Your task to perform on an android device: What's the weather like in Beijing? Image 0: 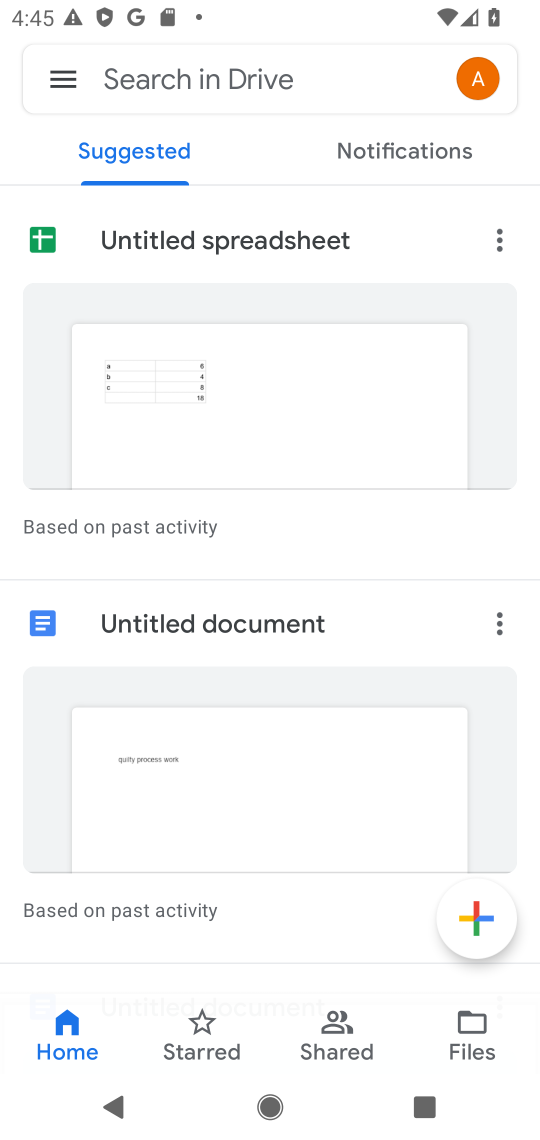
Step 0: press home button
Your task to perform on an android device: What's the weather like in Beijing? Image 1: 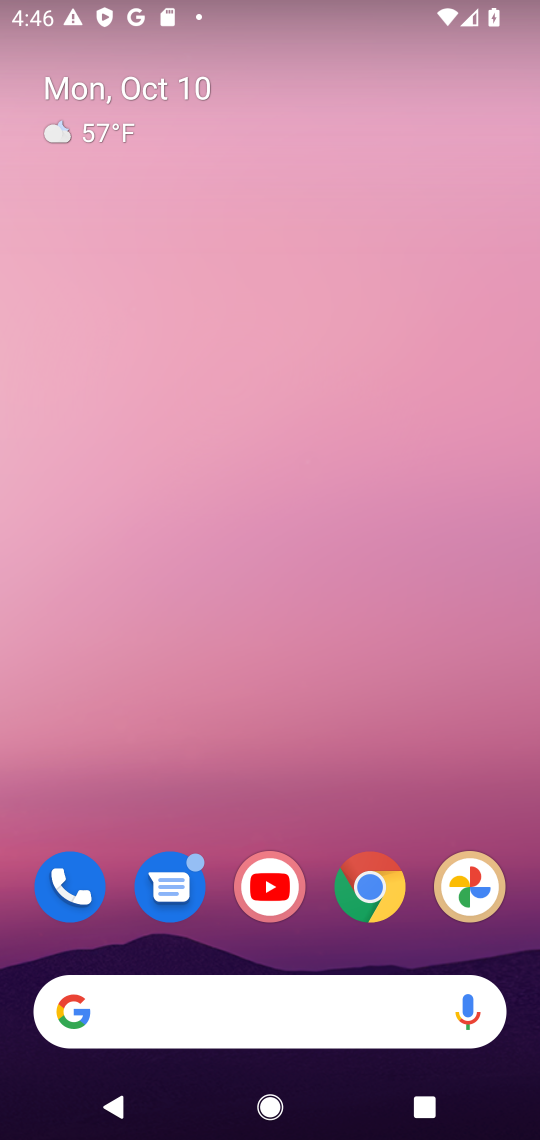
Step 1: click (379, 892)
Your task to perform on an android device: What's the weather like in Beijing? Image 2: 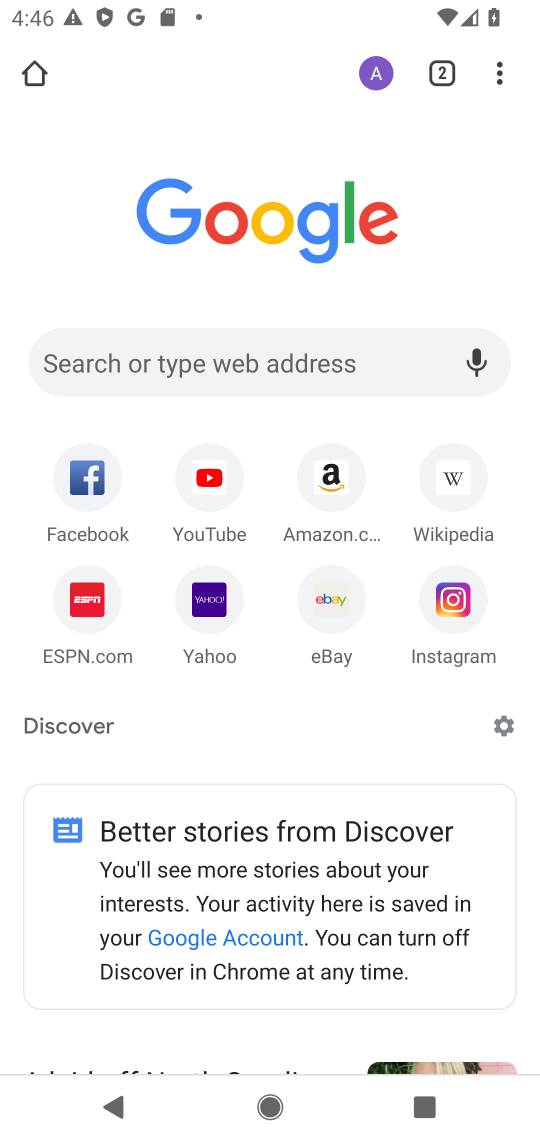
Step 2: click (175, 365)
Your task to perform on an android device: What's the weather like in Beijing? Image 3: 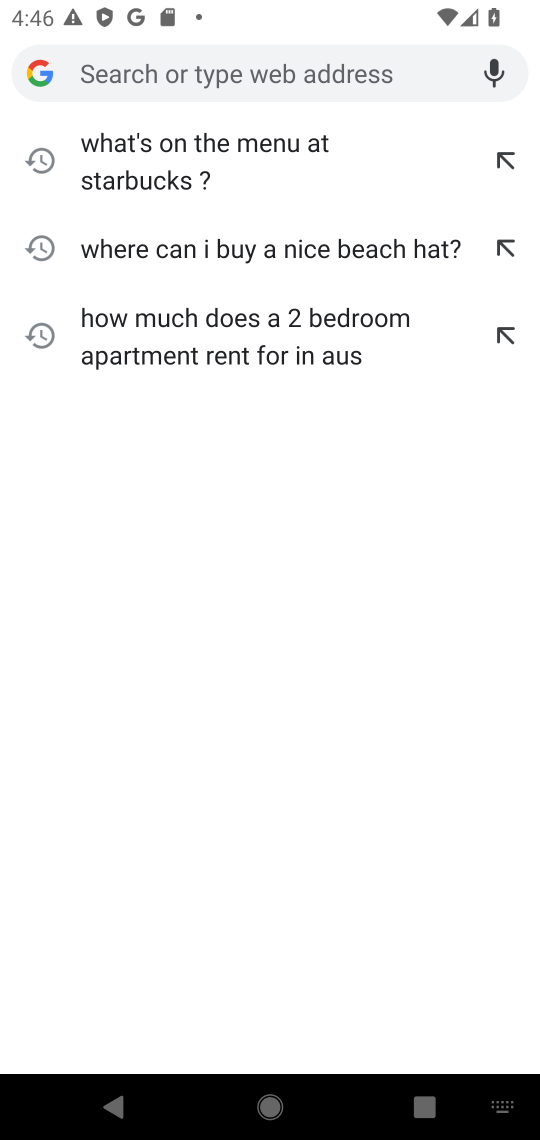
Step 3: type "weather in beijing ?"
Your task to perform on an android device: What's the weather like in Beijing? Image 4: 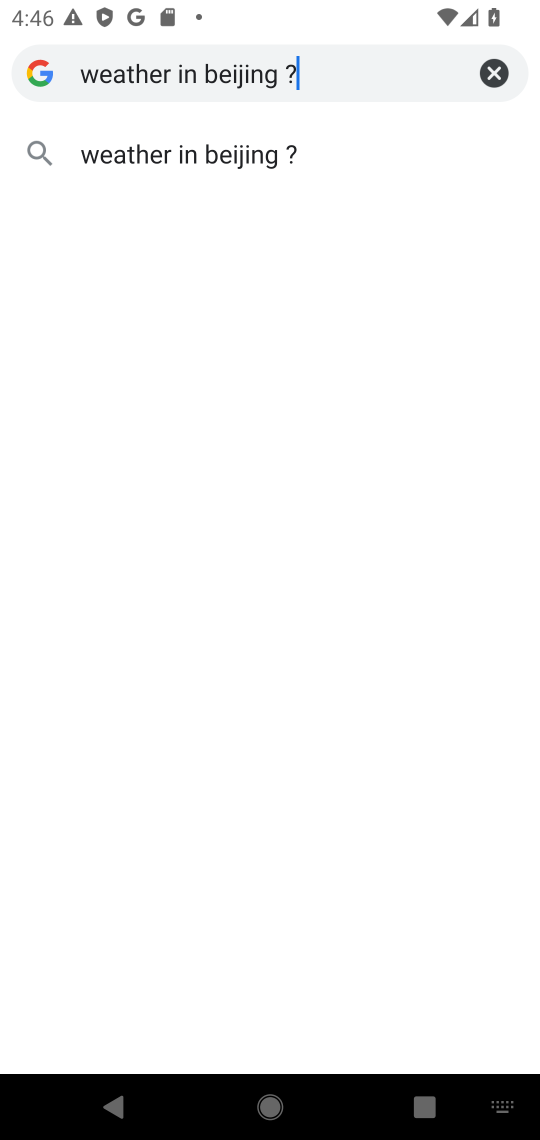
Step 4: click (299, 156)
Your task to perform on an android device: What's the weather like in Beijing? Image 5: 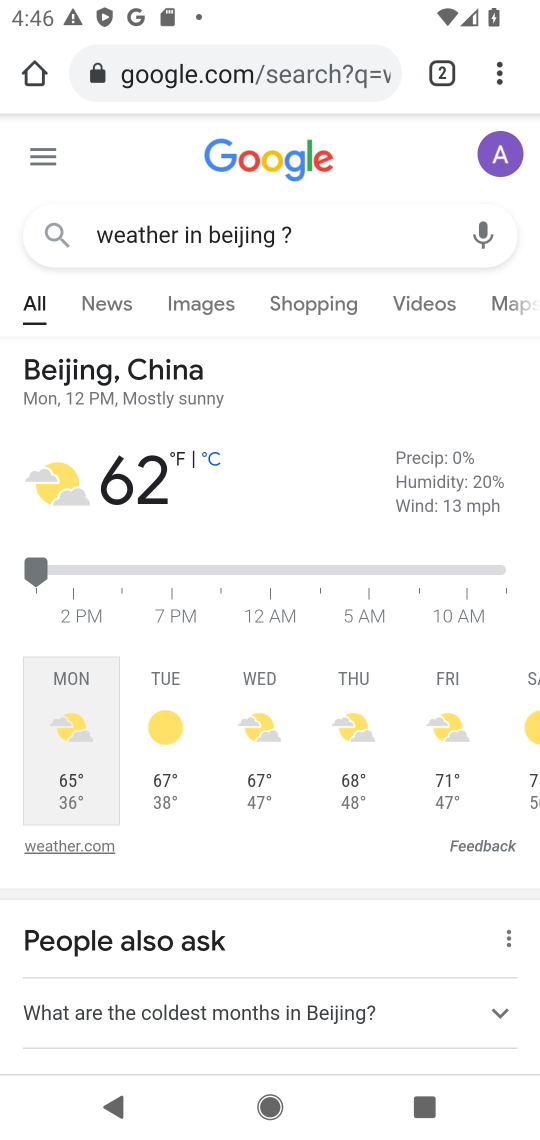
Step 5: task complete